Your task to perform on an android device: Go to ESPN.com Image 0: 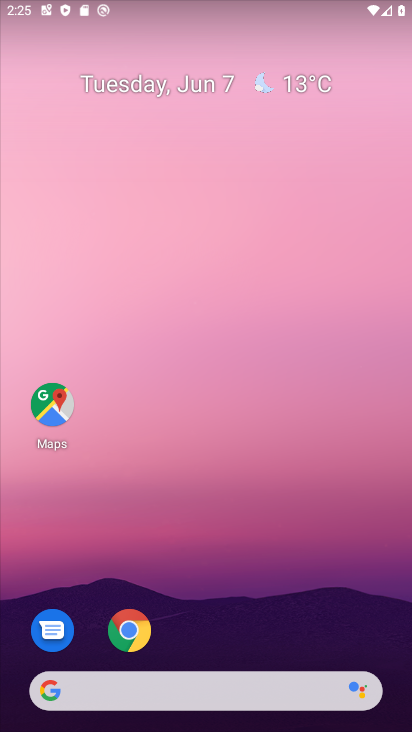
Step 0: click (129, 628)
Your task to perform on an android device: Go to ESPN.com Image 1: 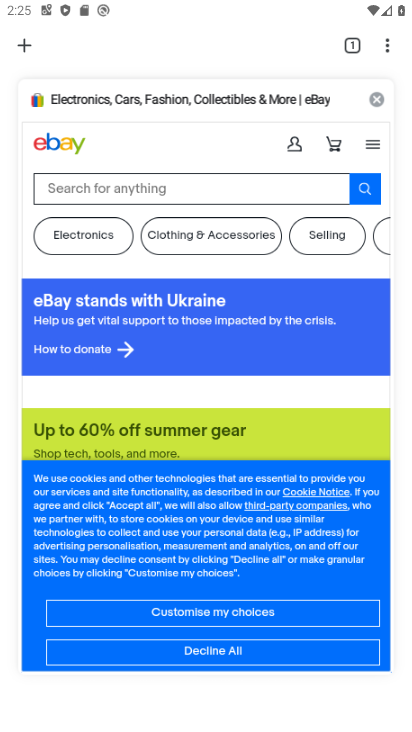
Step 1: click (21, 44)
Your task to perform on an android device: Go to ESPN.com Image 2: 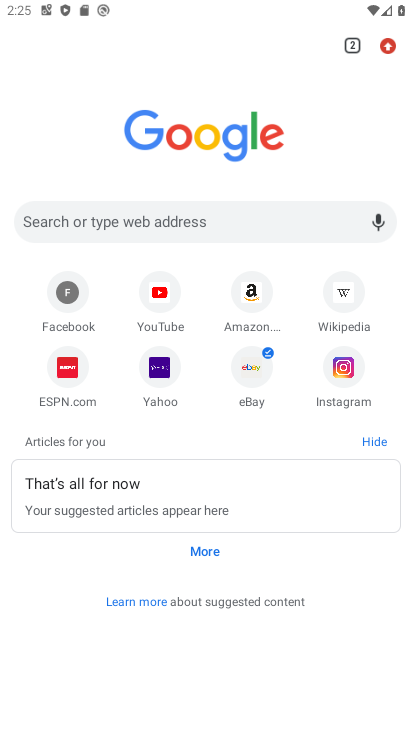
Step 2: click (75, 377)
Your task to perform on an android device: Go to ESPN.com Image 3: 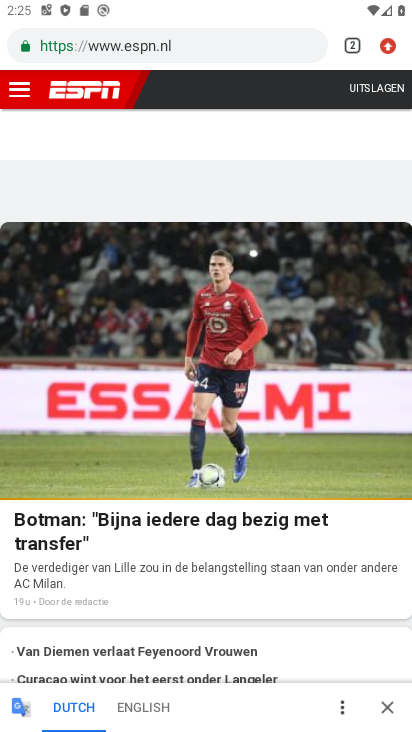
Step 3: task complete